Your task to perform on an android device: Clear all items from cart on newegg. Search for "bose quietcomfort 35" on newegg, select the first entry, add it to the cart, then select checkout. Image 0: 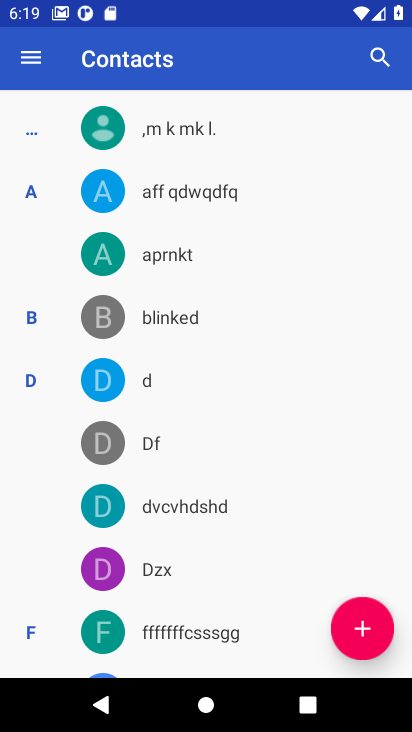
Step 0: press home button
Your task to perform on an android device: Clear all items from cart on newegg. Search for "bose quietcomfort 35" on newegg, select the first entry, add it to the cart, then select checkout. Image 1: 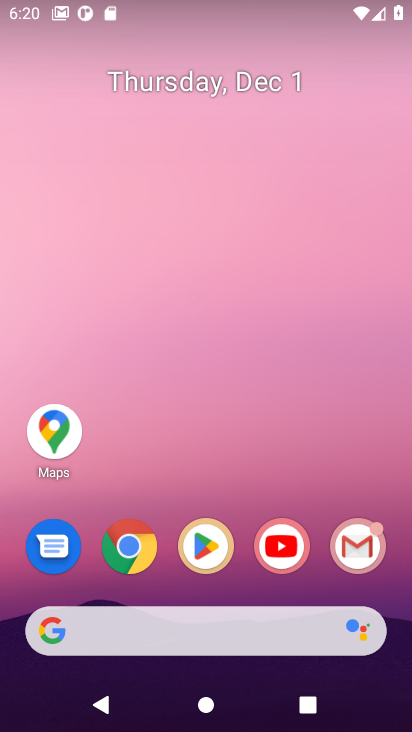
Step 1: click (133, 551)
Your task to perform on an android device: Clear all items from cart on newegg. Search for "bose quietcomfort 35" on newegg, select the first entry, add it to the cart, then select checkout. Image 2: 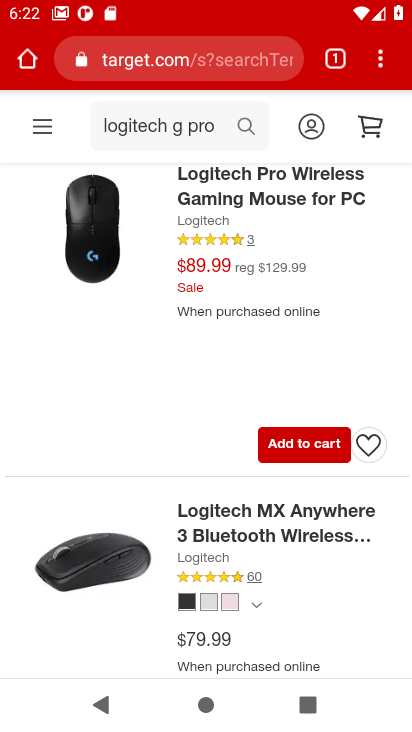
Step 2: click (163, 63)
Your task to perform on an android device: Clear all items from cart on newegg. Search for "bose quietcomfort 35" on newegg, select the first entry, add it to the cart, then select checkout. Image 3: 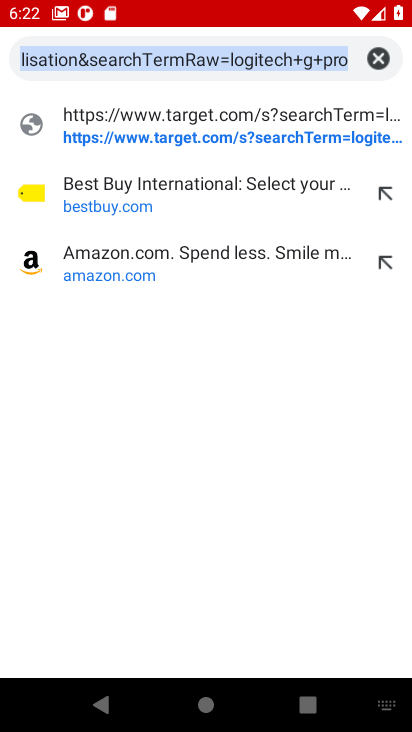
Step 3: type "newegg.com"
Your task to perform on an android device: Clear all items from cart on newegg. Search for "bose quietcomfort 35" on newegg, select the first entry, add it to the cart, then select checkout. Image 4: 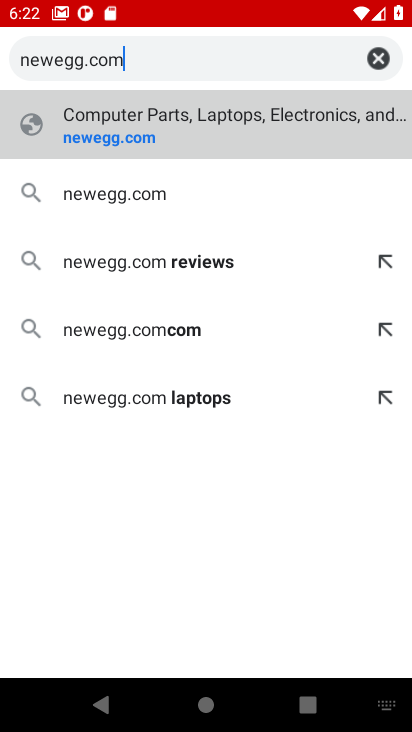
Step 4: click (105, 148)
Your task to perform on an android device: Clear all items from cart on newegg. Search for "bose quietcomfort 35" on newegg, select the first entry, add it to the cart, then select checkout. Image 5: 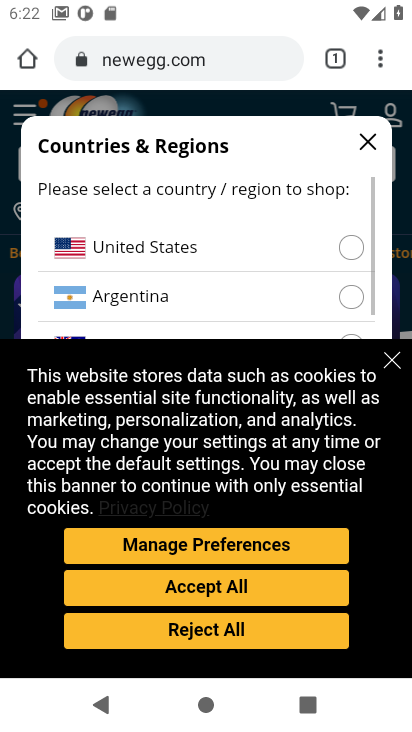
Step 5: click (389, 367)
Your task to perform on an android device: Clear all items from cart on newegg. Search for "bose quietcomfort 35" on newegg, select the first entry, add it to the cart, then select checkout. Image 6: 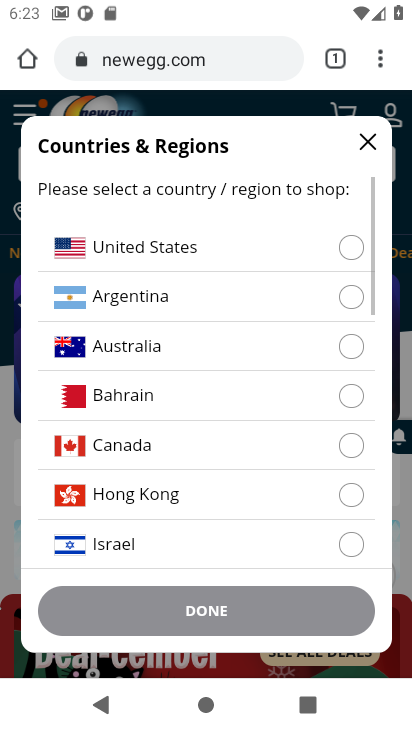
Step 6: click (87, 249)
Your task to perform on an android device: Clear all items from cart on newegg. Search for "bose quietcomfort 35" on newegg, select the first entry, add it to the cart, then select checkout. Image 7: 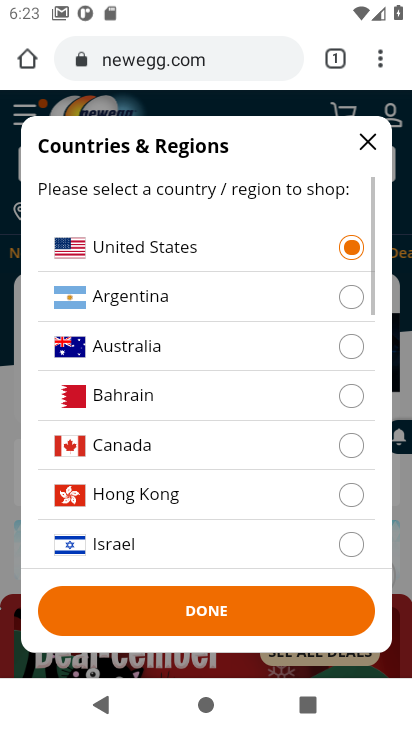
Step 7: click (187, 605)
Your task to perform on an android device: Clear all items from cart on newegg. Search for "bose quietcomfort 35" on newegg, select the first entry, add it to the cart, then select checkout. Image 8: 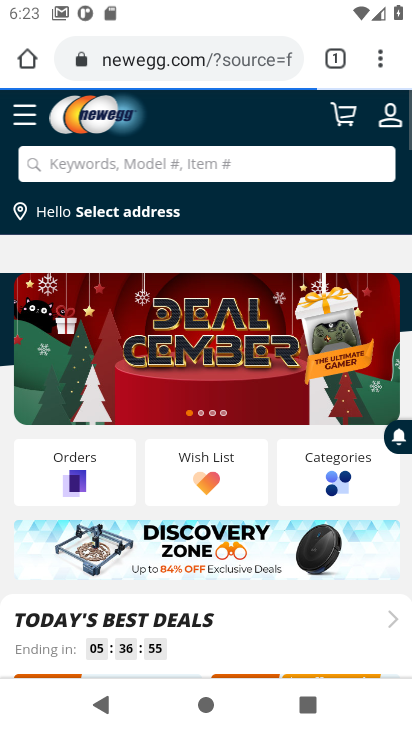
Step 8: click (342, 117)
Your task to perform on an android device: Clear all items from cart on newegg. Search for "bose quietcomfort 35" on newegg, select the first entry, add it to the cart, then select checkout. Image 9: 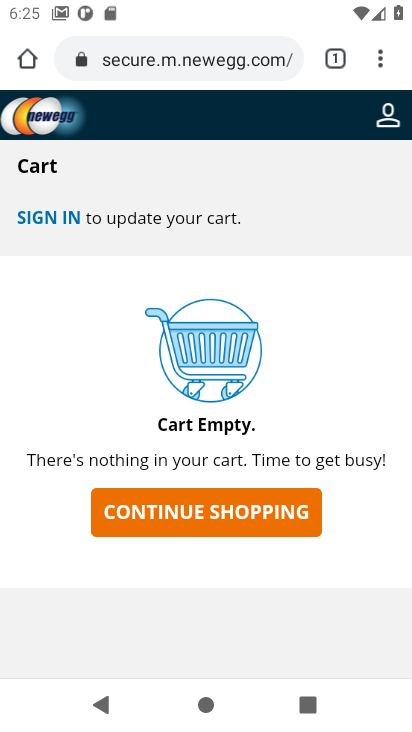
Step 9: click (140, 498)
Your task to perform on an android device: Clear all items from cart on newegg. Search for "bose quietcomfort 35" on newegg, select the first entry, add it to the cart, then select checkout. Image 10: 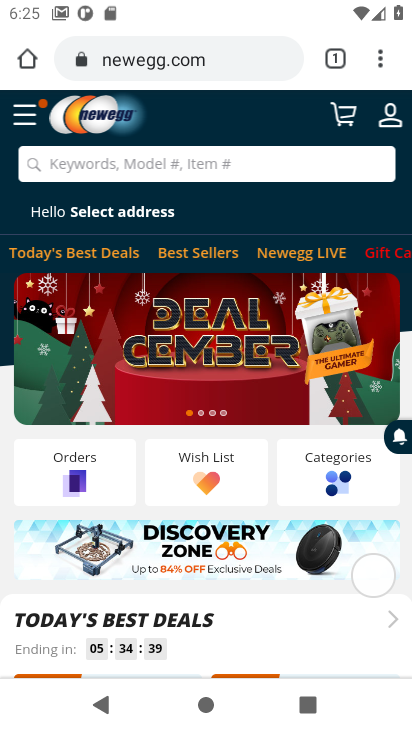
Step 10: click (94, 160)
Your task to perform on an android device: Clear all items from cart on newegg. Search for "bose quietcomfort 35" on newegg, select the first entry, add it to the cart, then select checkout. Image 11: 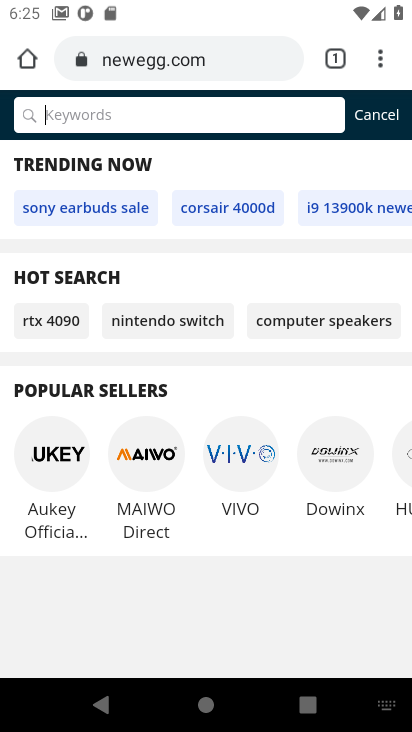
Step 11: type "bose quietcomfort 35"
Your task to perform on an android device: Clear all items from cart on newegg. Search for "bose quietcomfort 35" on newegg, select the first entry, add it to the cart, then select checkout. Image 12: 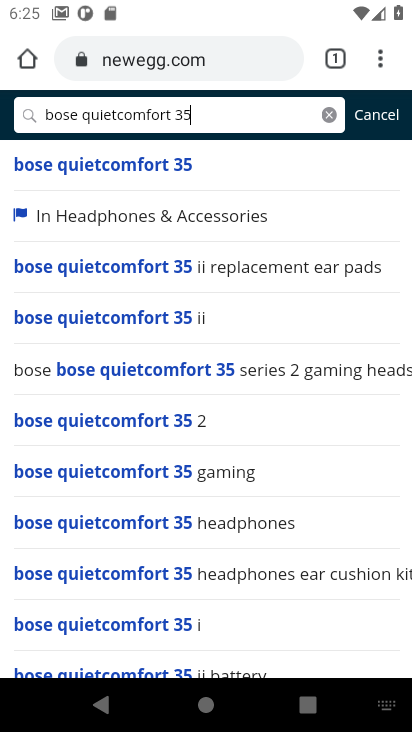
Step 12: click (107, 169)
Your task to perform on an android device: Clear all items from cart on newegg. Search for "bose quietcomfort 35" on newegg, select the first entry, add it to the cart, then select checkout. Image 13: 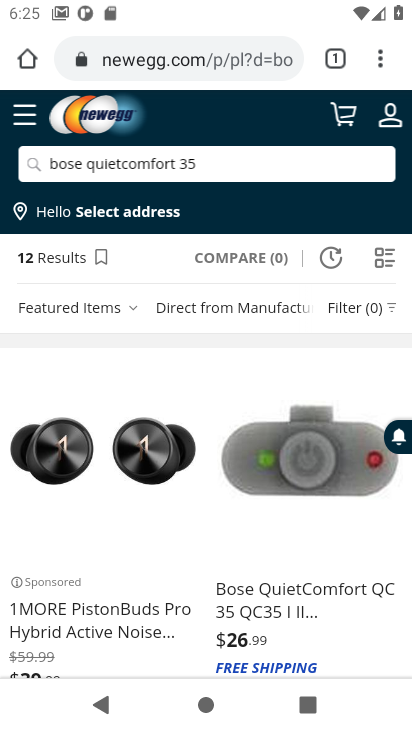
Step 13: task complete